Your task to perform on an android device: open app "Mercado Libre" (install if not already installed) Image 0: 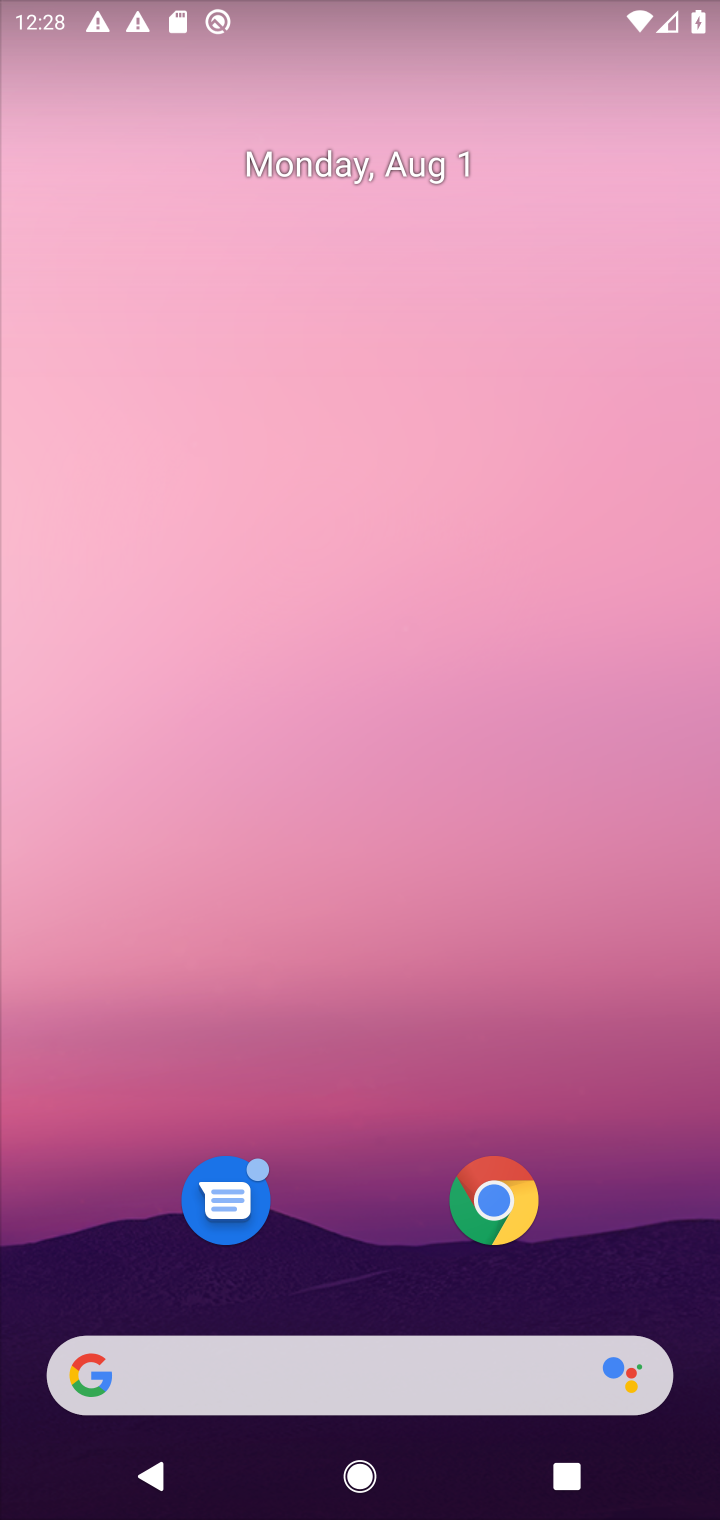
Step 0: drag from (375, 1271) to (456, 20)
Your task to perform on an android device: open app "Mercado Libre" (install if not already installed) Image 1: 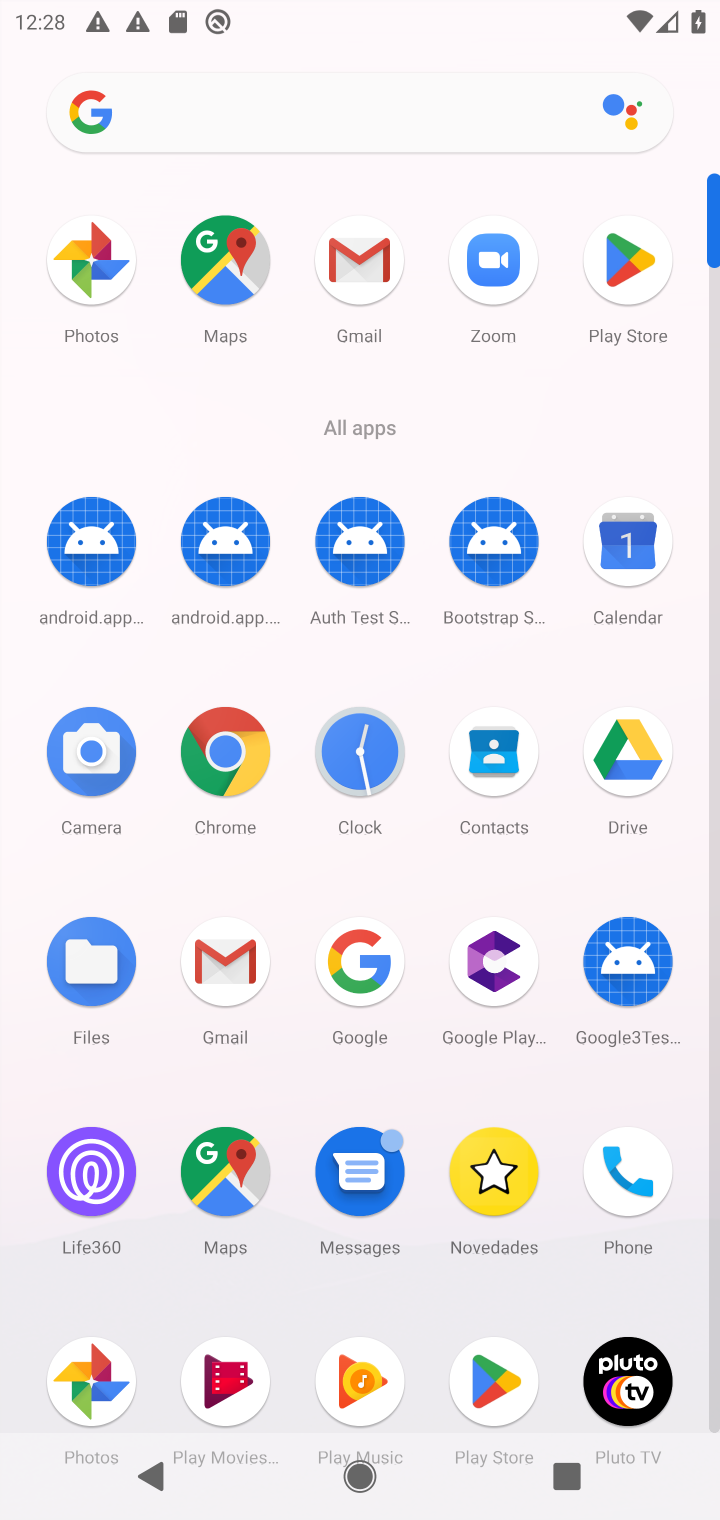
Step 1: click (643, 274)
Your task to perform on an android device: open app "Mercado Libre" (install if not already installed) Image 2: 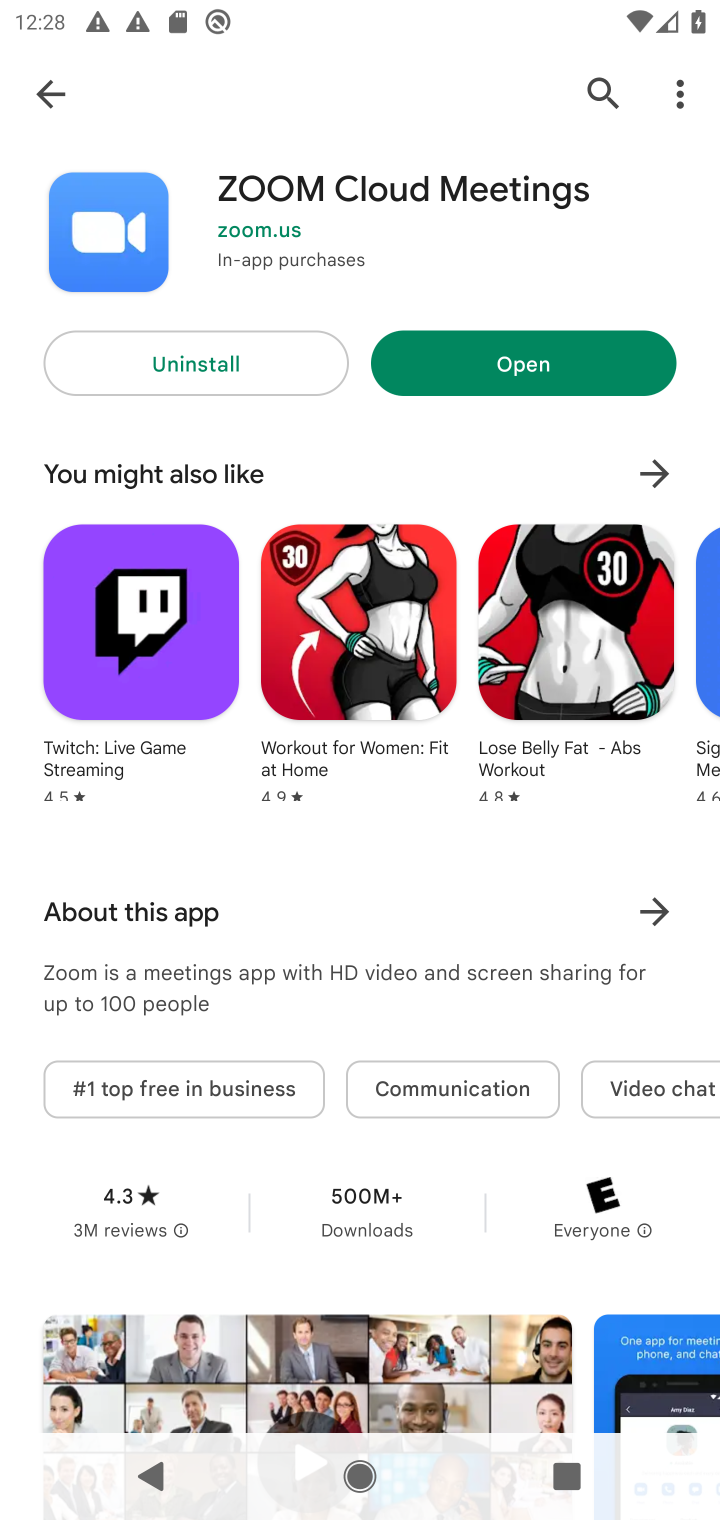
Step 2: click (592, 75)
Your task to perform on an android device: open app "Mercado Libre" (install if not already installed) Image 3: 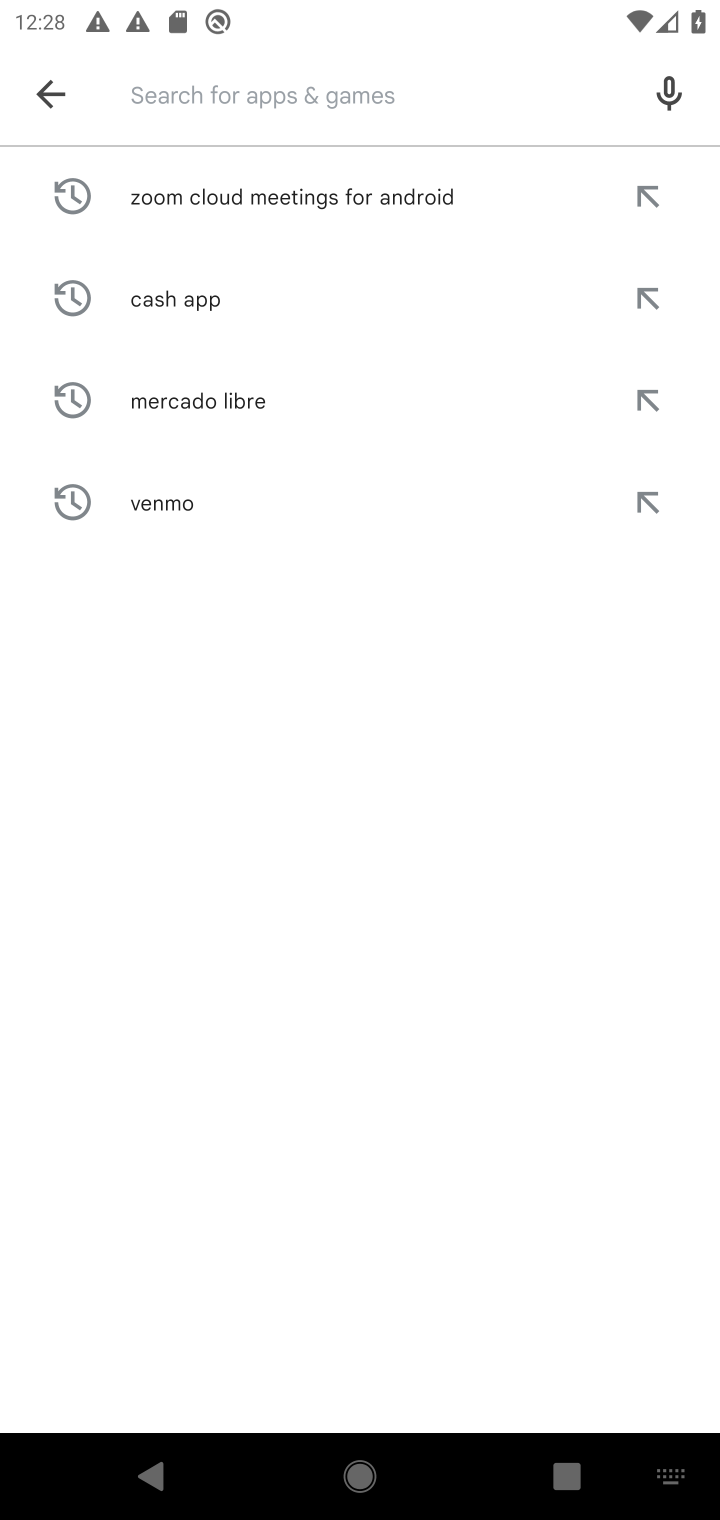
Step 3: type "mercado libre"
Your task to perform on an android device: open app "Mercado Libre" (install if not already installed) Image 4: 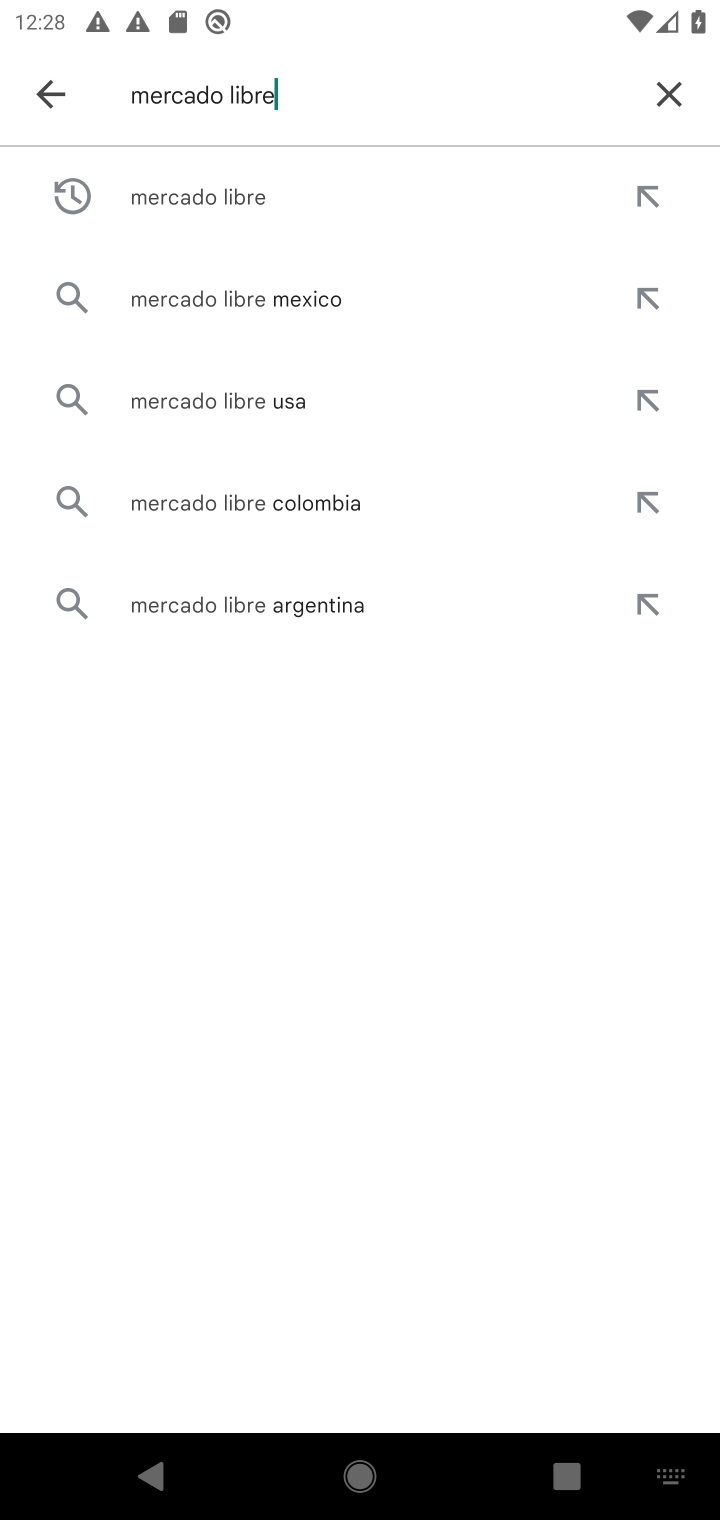
Step 4: click (232, 219)
Your task to perform on an android device: open app "Mercado Libre" (install if not already installed) Image 5: 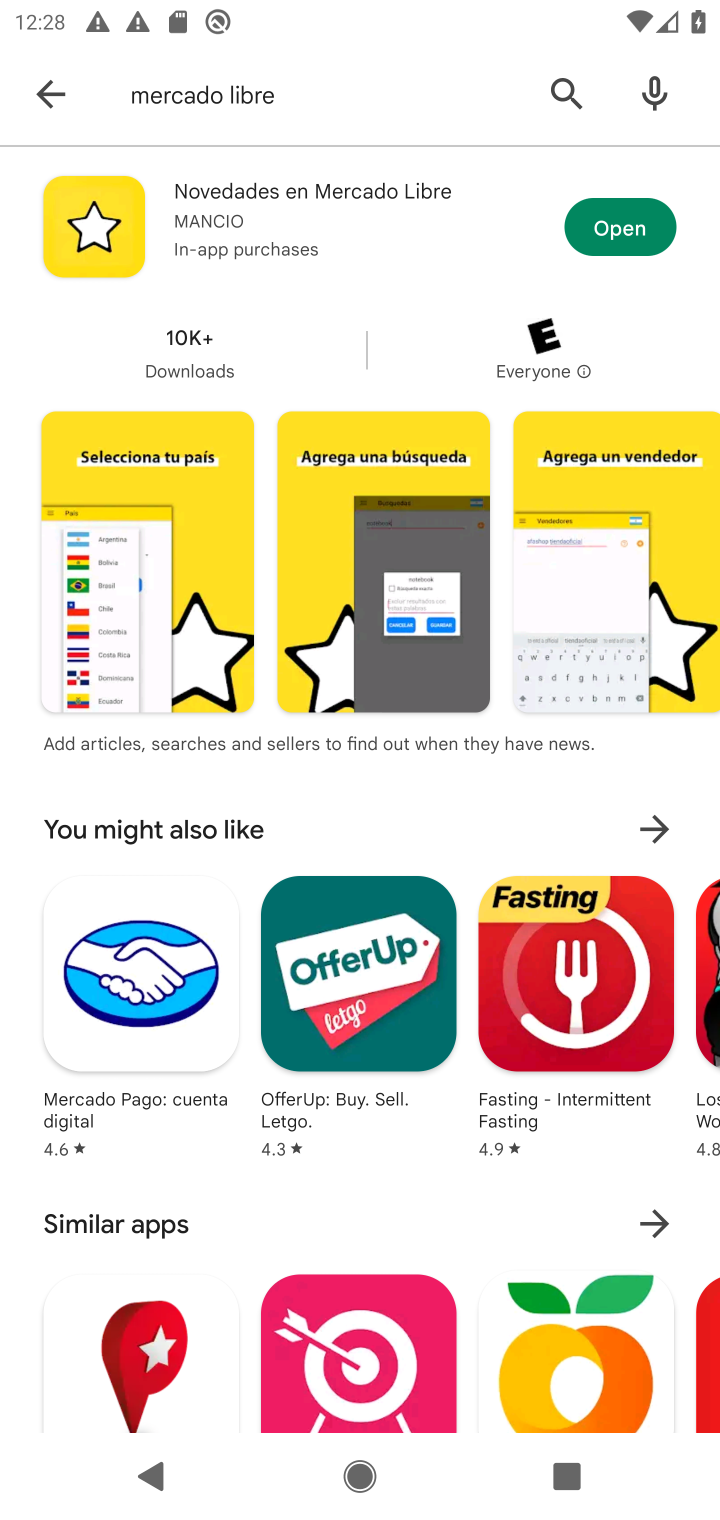
Step 5: click (232, 219)
Your task to perform on an android device: open app "Mercado Libre" (install if not already installed) Image 6: 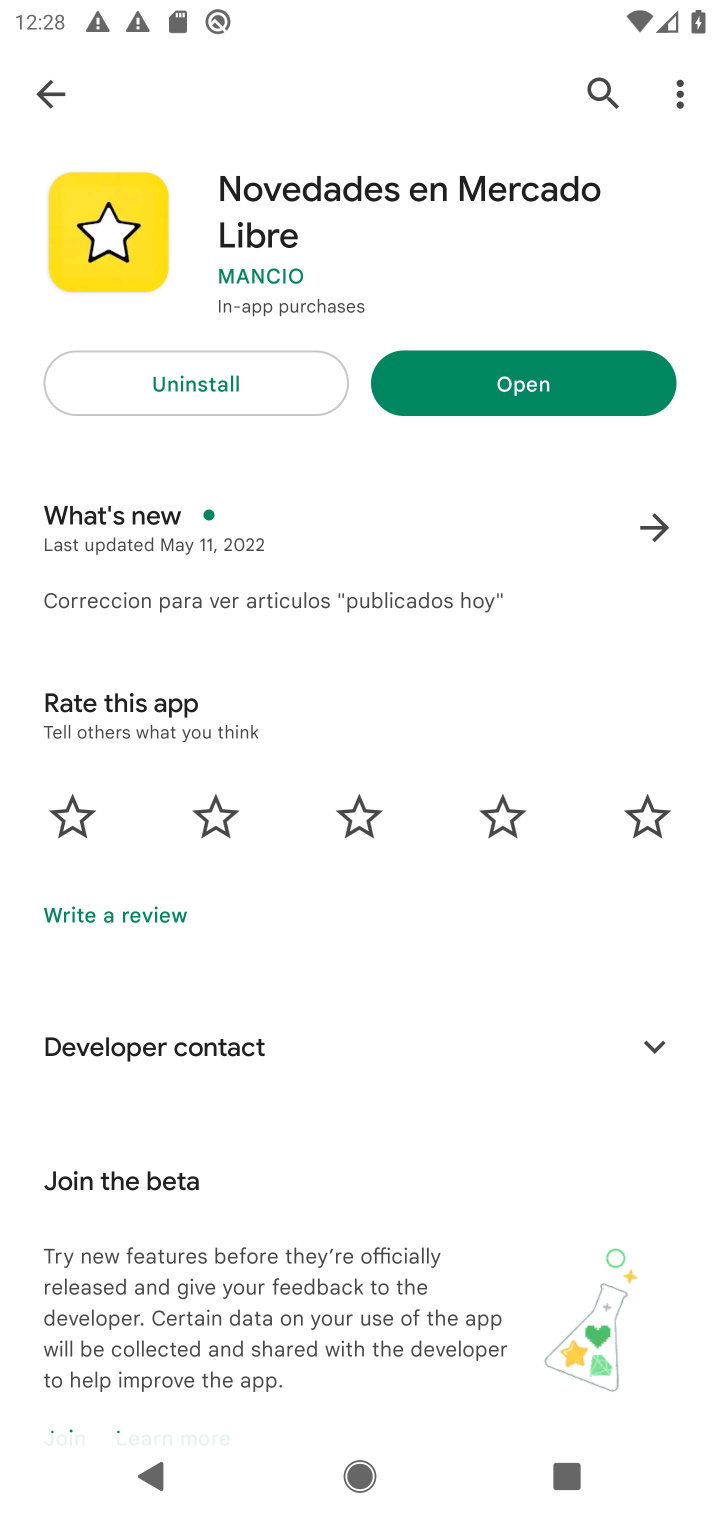
Step 6: click (543, 366)
Your task to perform on an android device: open app "Mercado Libre" (install if not already installed) Image 7: 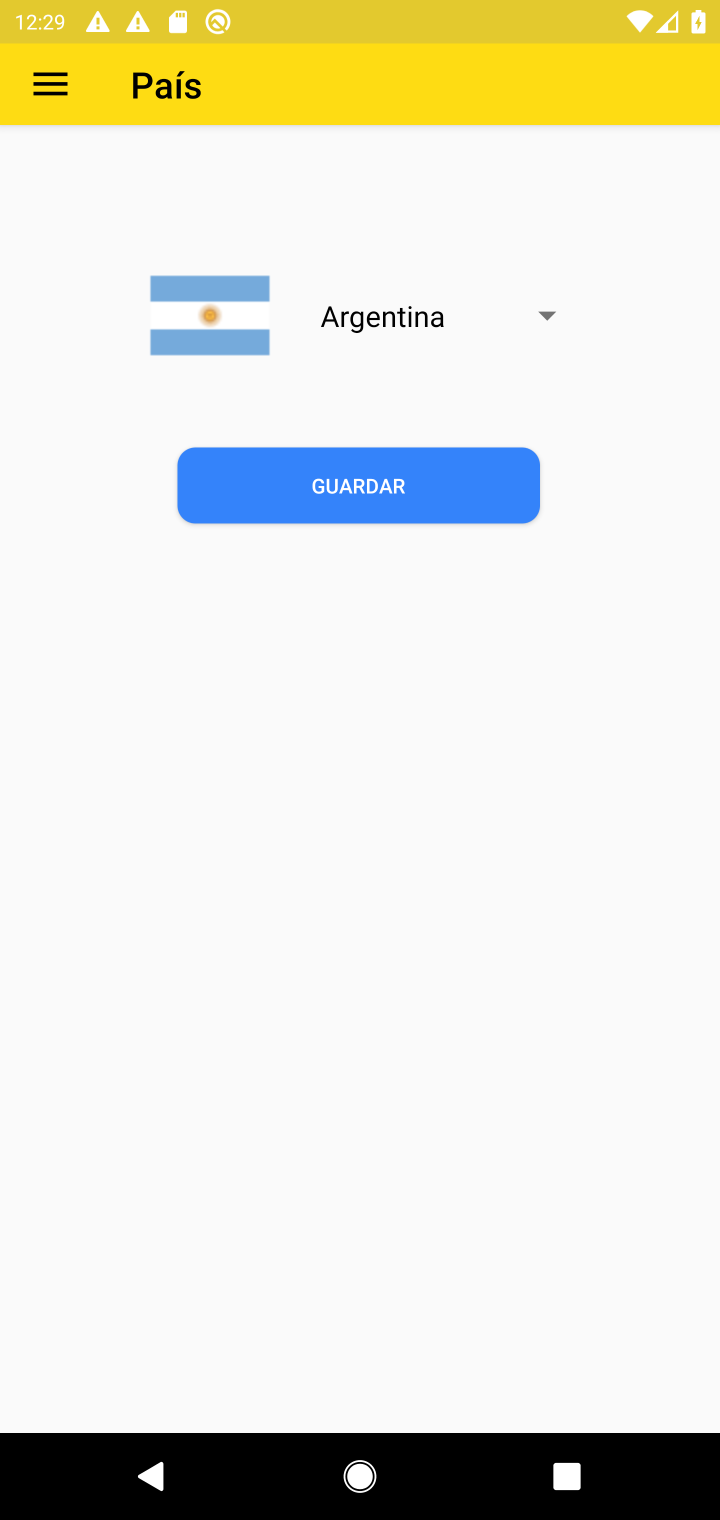
Step 7: task complete